Your task to perform on an android device: turn on sleep mode Image 0: 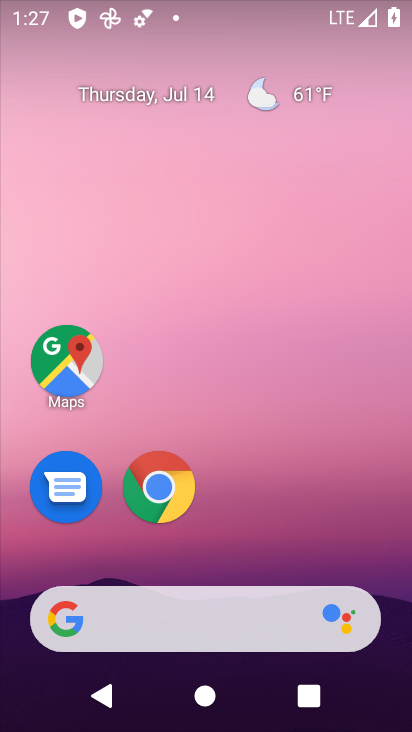
Step 0: drag from (355, 556) to (373, 130)
Your task to perform on an android device: turn on sleep mode Image 1: 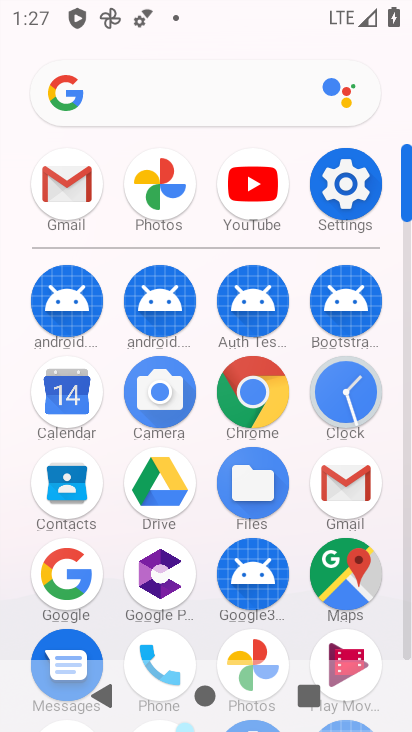
Step 1: click (353, 193)
Your task to perform on an android device: turn on sleep mode Image 2: 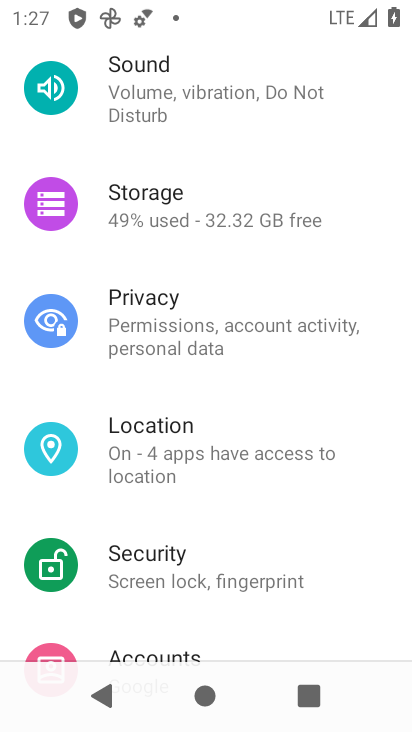
Step 2: drag from (353, 193) to (362, 341)
Your task to perform on an android device: turn on sleep mode Image 3: 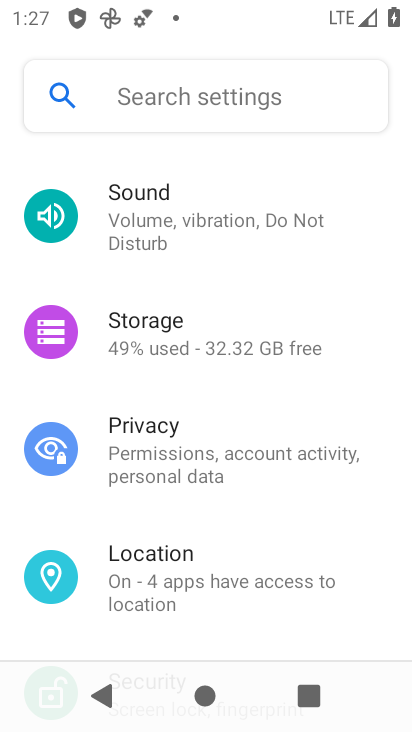
Step 3: drag from (376, 185) to (376, 372)
Your task to perform on an android device: turn on sleep mode Image 4: 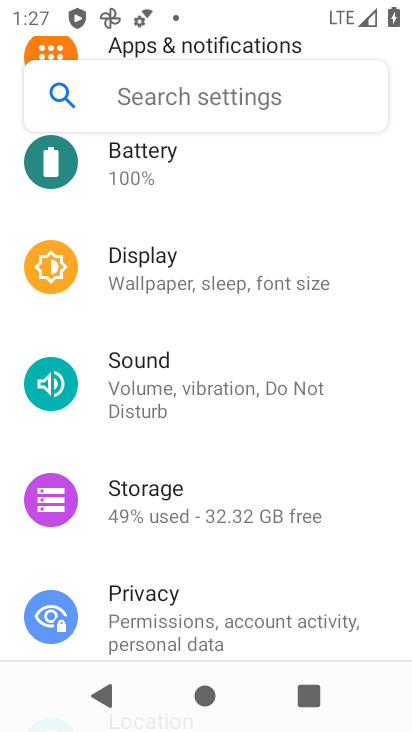
Step 4: drag from (359, 205) to (358, 380)
Your task to perform on an android device: turn on sleep mode Image 5: 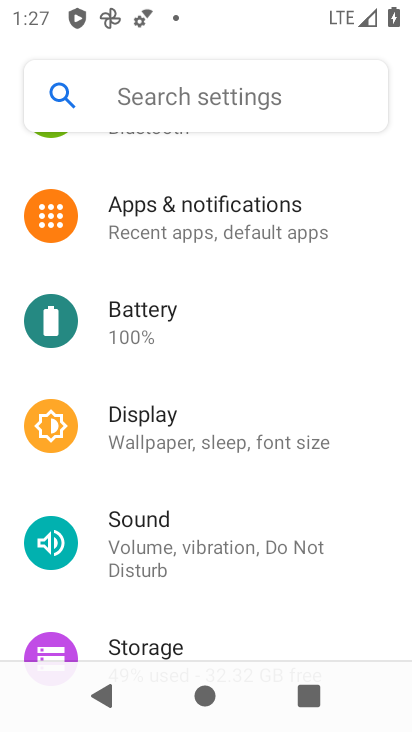
Step 5: drag from (356, 197) to (358, 366)
Your task to perform on an android device: turn on sleep mode Image 6: 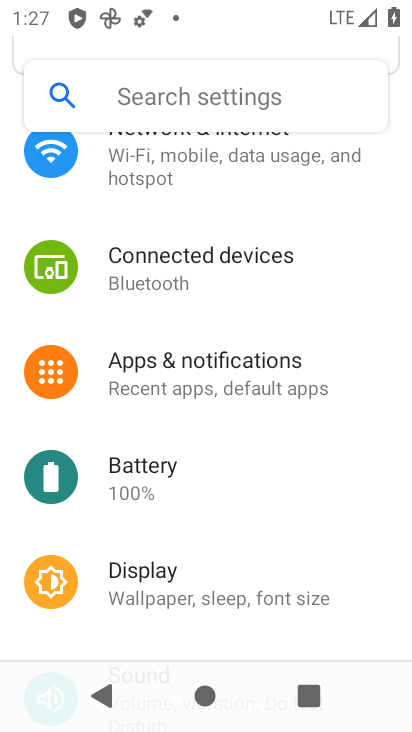
Step 6: drag from (354, 199) to (356, 382)
Your task to perform on an android device: turn on sleep mode Image 7: 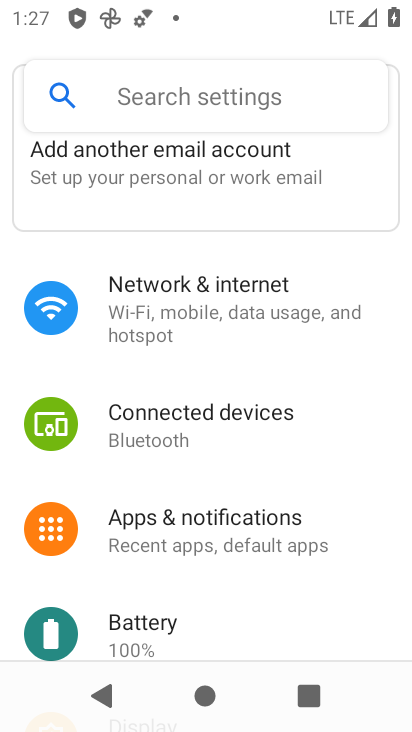
Step 7: drag from (327, 497) to (335, 362)
Your task to perform on an android device: turn on sleep mode Image 8: 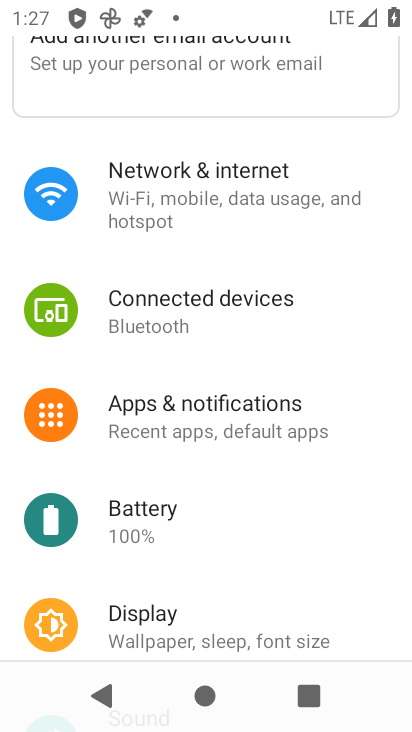
Step 8: drag from (341, 547) to (368, 379)
Your task to perform on an android device: turn on sleep mode Image 9: 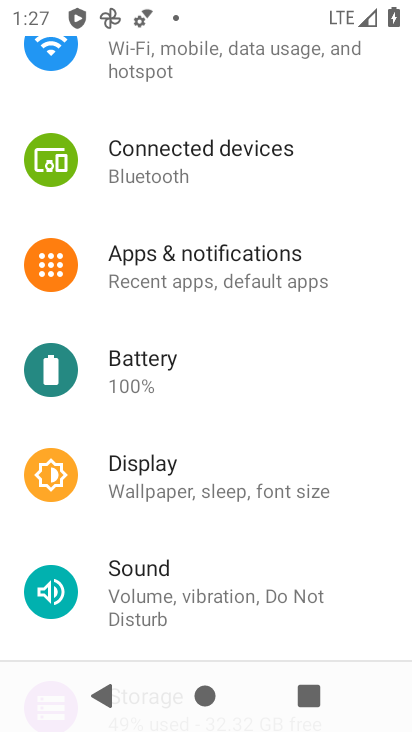
Step 9: drag from (367, 555) to (369, 408)
Your task to perform on an android device: turn on sleep mode Image 10: 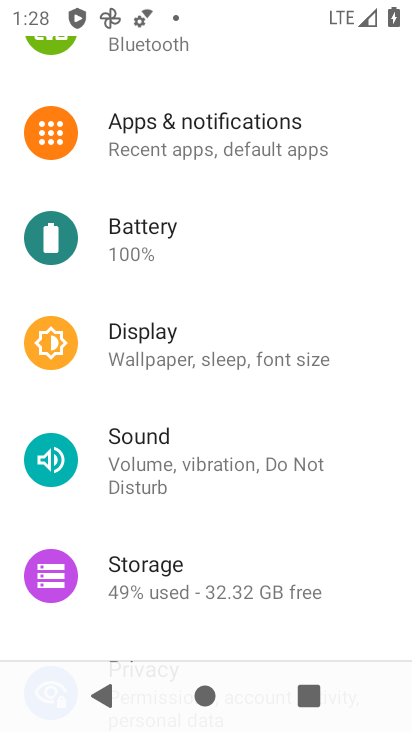
Step 10: drag from (343, 542) to (349, 391)
Your task to perform on an android device: turn on sleep mode Image 11: 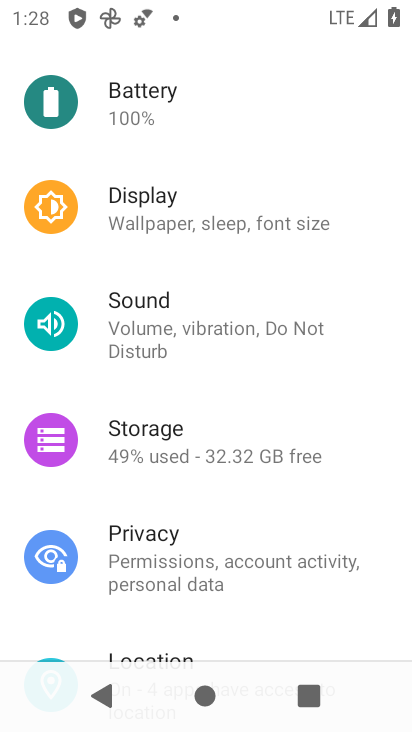
Step 11: click (293, 216)
Your task to perform on an android device: turn on sleep mode Image 12: 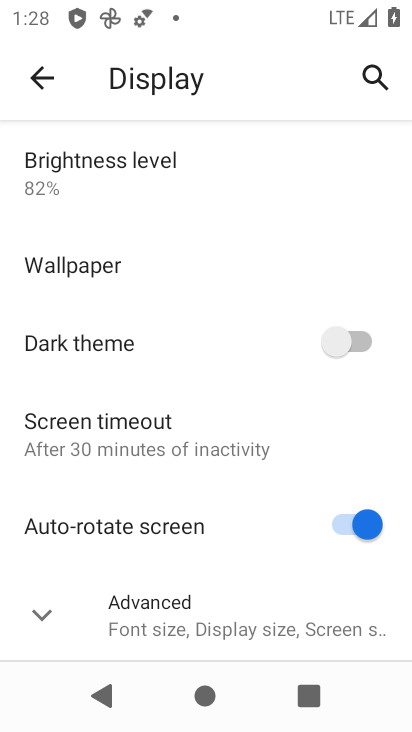
Step 12: drag from (237, 522) to (247, 377)
Your task to perform on an android device: turn on sleep mode Image 13: 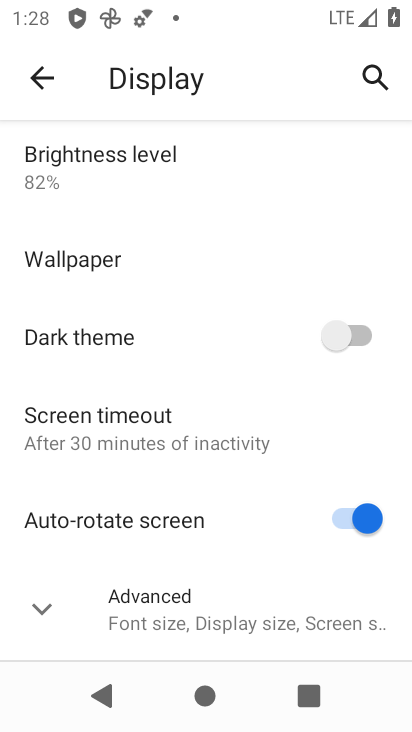
Step 13: click (193, 615)
Your task to perform on an android device: turn on sleep mode Image 14: 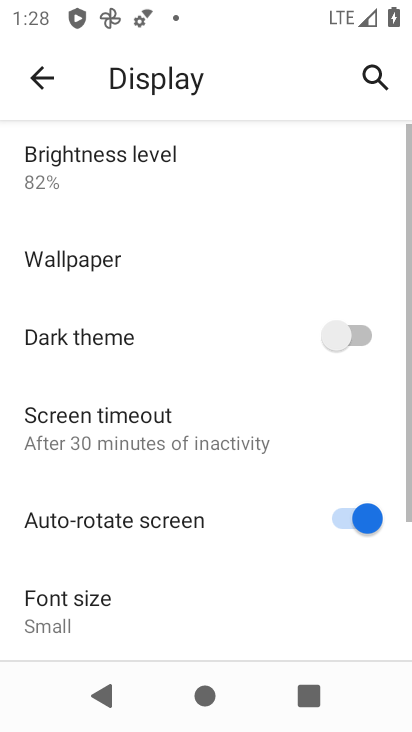
Step 14: task complete